Your task to perform on an android device: turn off notifications settings in the gmail app Image 0: 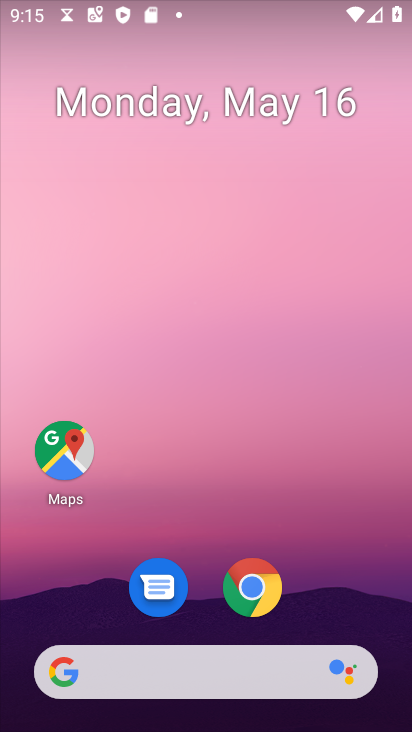
Step 0: drag from (344, 596) to (283, 202)
Your task to perform on an android device: turn off notifications settings in the gmail app Image 1: 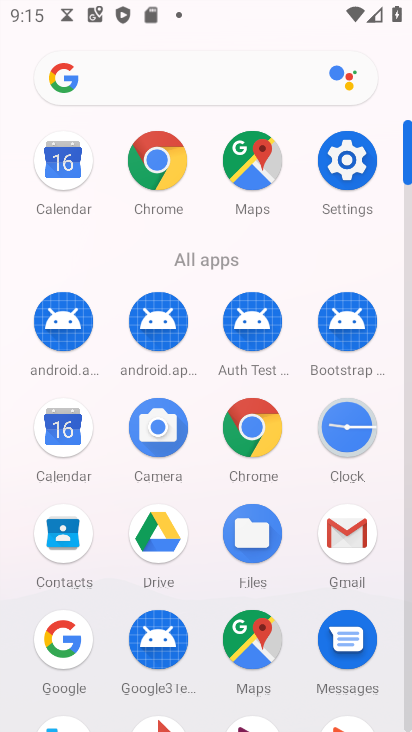
Step 1: click (355, 539)
Your task to perform on an android device: turn off notifications settings in the gmail app Image 2: 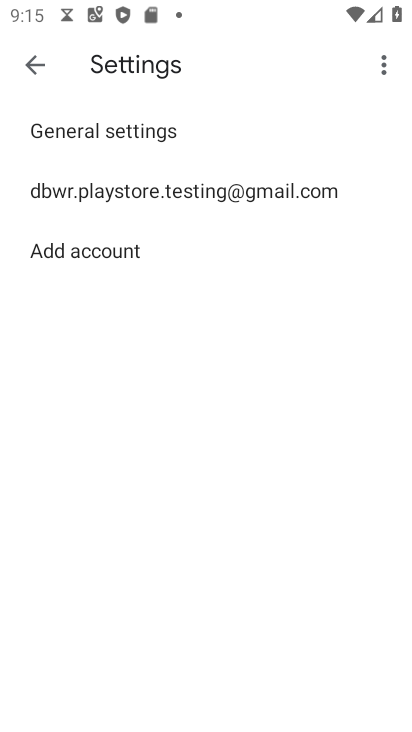
Step 2: click (316, 177)
Your task to perform on an android device: turn off notifications settings in the gmail app Image 3: 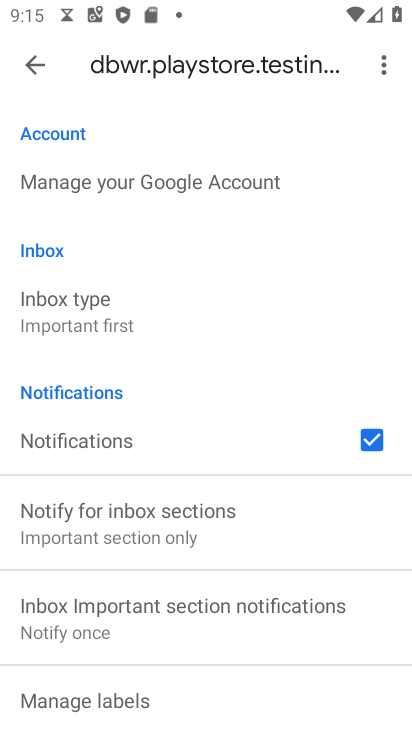
Step 3: drag from (291, 642) to (315, 265)
Your task to perform on an android device: turn off notifications settings in the gmail app Image 4: 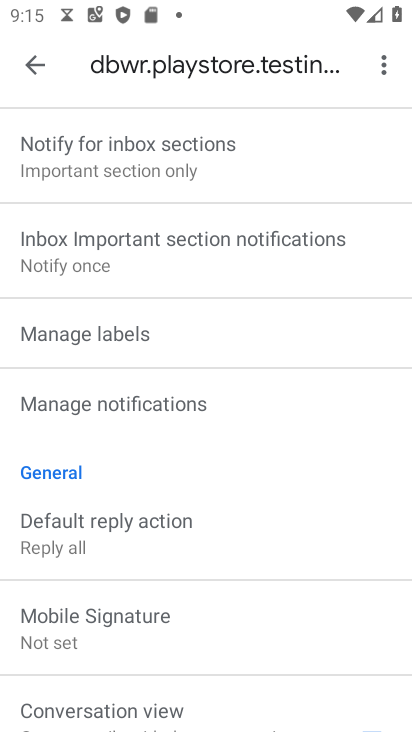
Step 4: click (305, 390)
Your task to perform on an android device: turn off notifications settings in the gmail app Image 5: 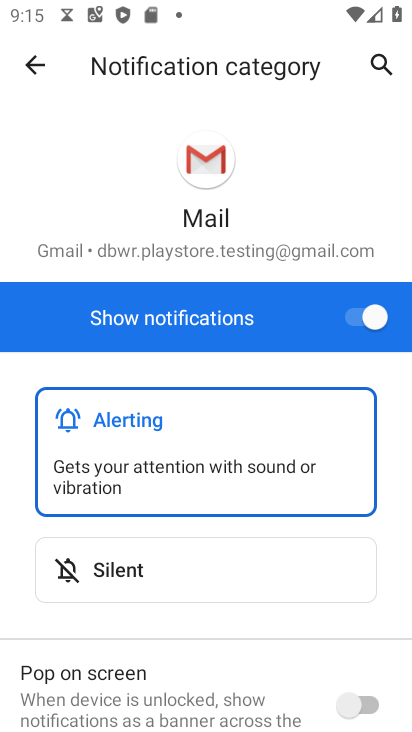
Step 5: drag from (395, 613) to (342, 360)
Your task to perform on an android device: turn off notifications settings in the gmail app Image 6: 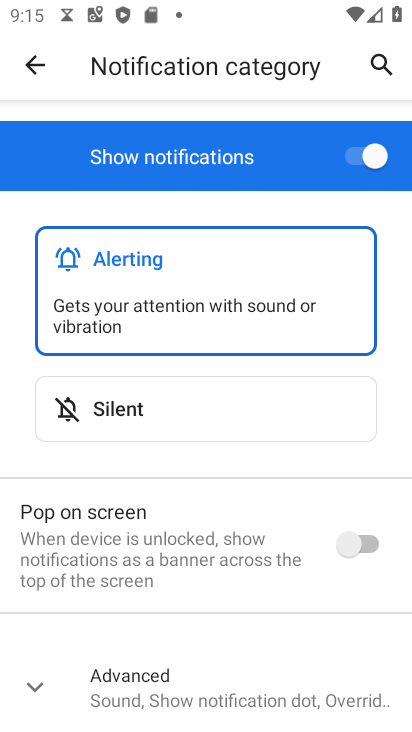
Step 6: click (305, 687)
Your task to perform on an android device: turn off notifications settings in the gmail app Image 7: 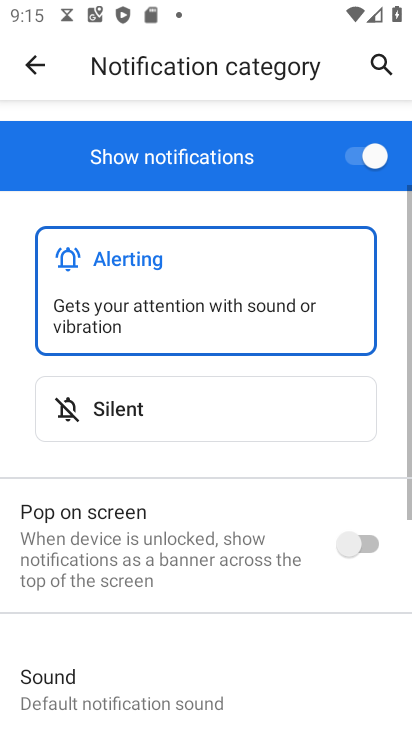
Step 7: drag from (309, 621) to (315, 105)
Your task to perform on an android device: turn off notifications settings in the gmail app Image 8: 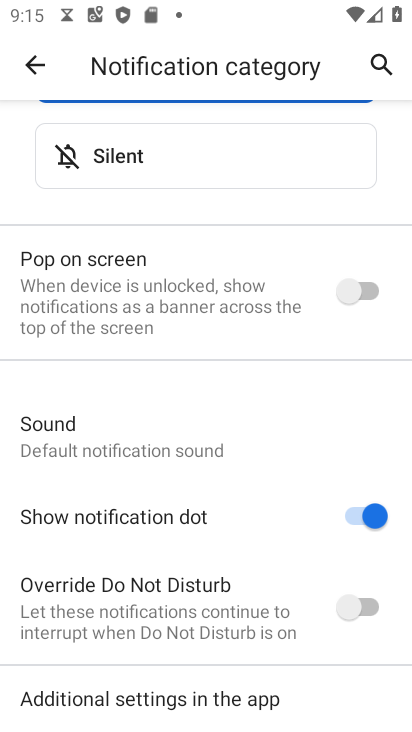
Step 8: click (361, 506)
Your task to perform on an android device: turn off notifications settings in the gmail app Image 9: 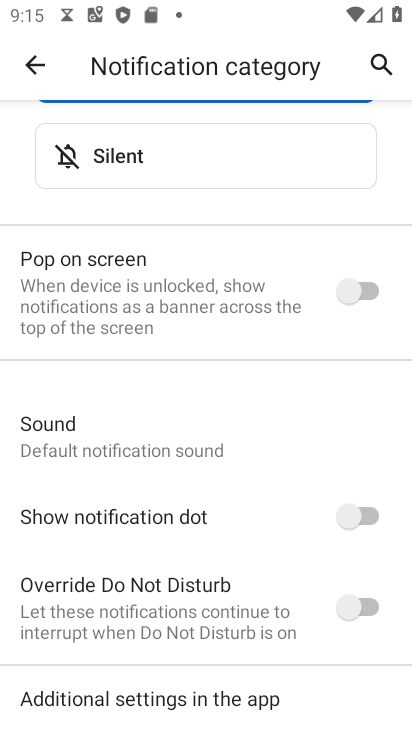
Step 9: task complete